Your task to perform on an android device: open chrome and create a bookmark for the current page Image 0: 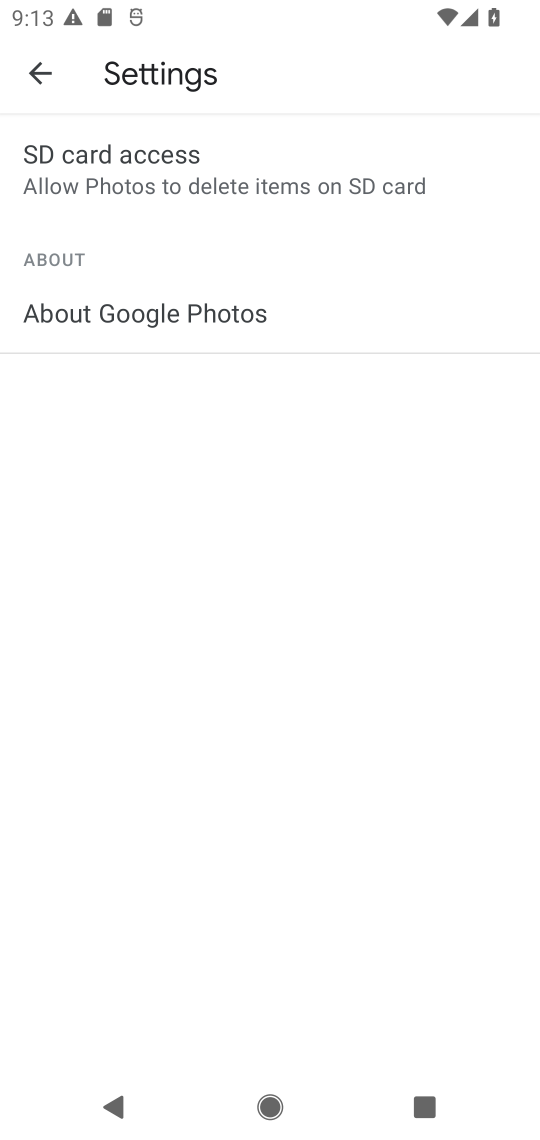
Step 0: press home button
Your task to perform on an android device: open chrome and create a bookmark for the current page Image 1: 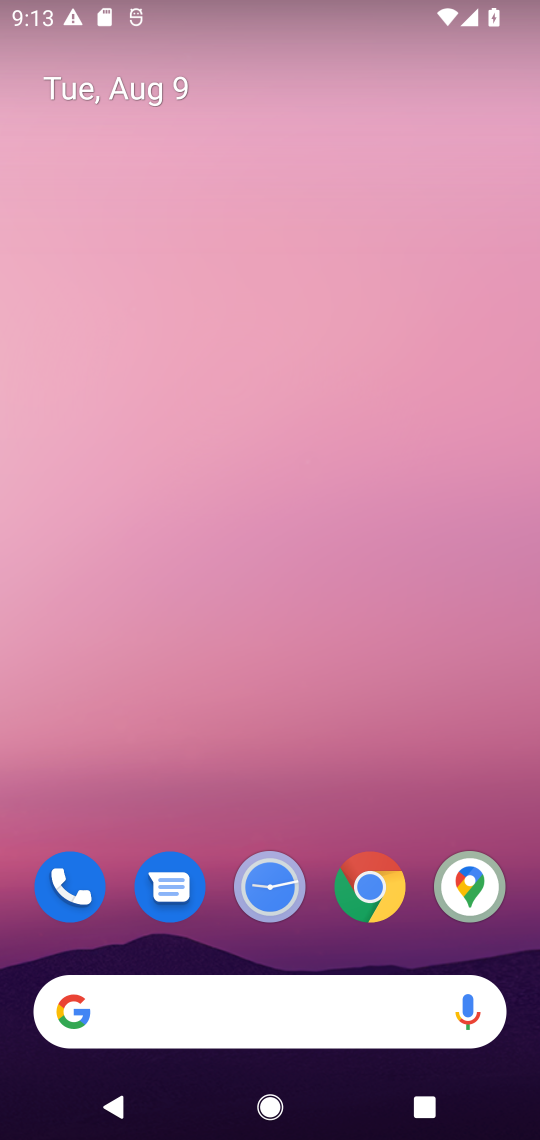
Step 1: click (358, 869)
Your task to perform on an android device: open chrome and create a bookmark for the current page Image 2: 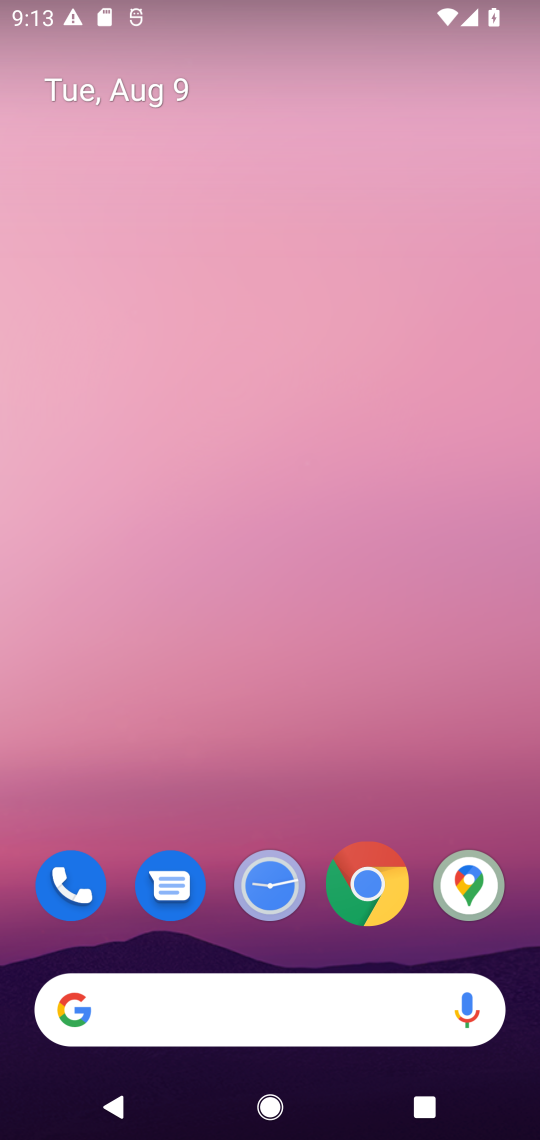
Step 2: click (384, 881)
Your task to perform on an android device: open chrome and create a bookmark for the current page Image 3: 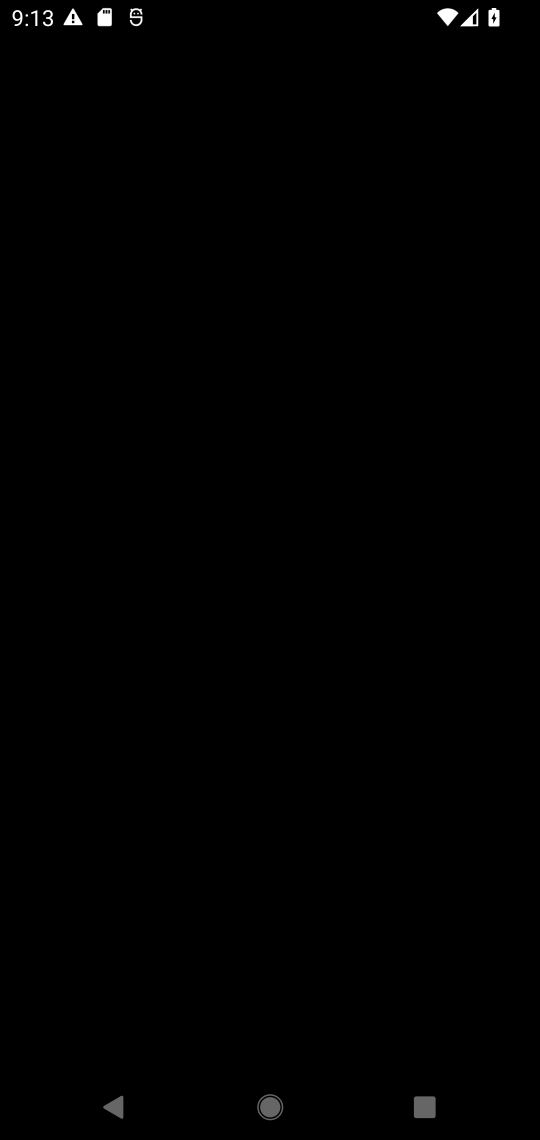
Step 3: task complete